Your task to perform on an android device: toggle location history Image 0: 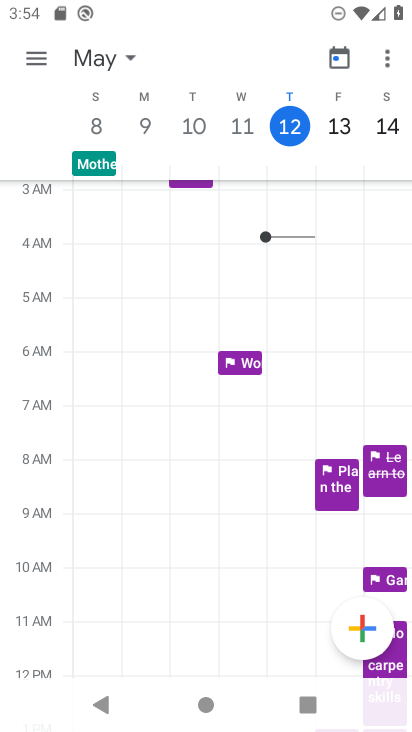
Step 0: press home button
Your task to perform on an android device: toggle location history Image 1: 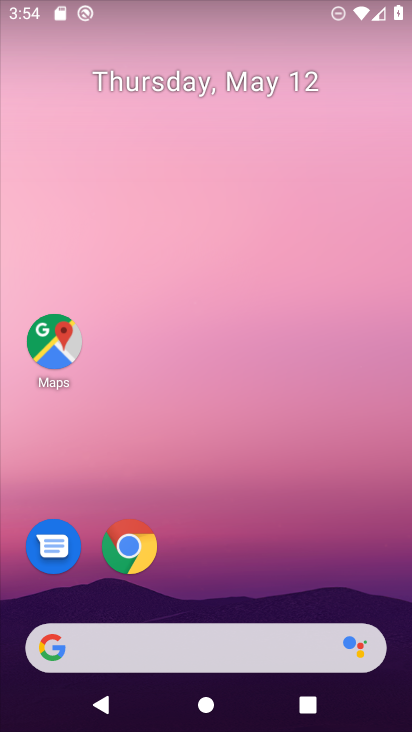
Step 1: drag from (260, 526) to (257, 245)
Your task to perform on an android device: toggle location history Image 2: 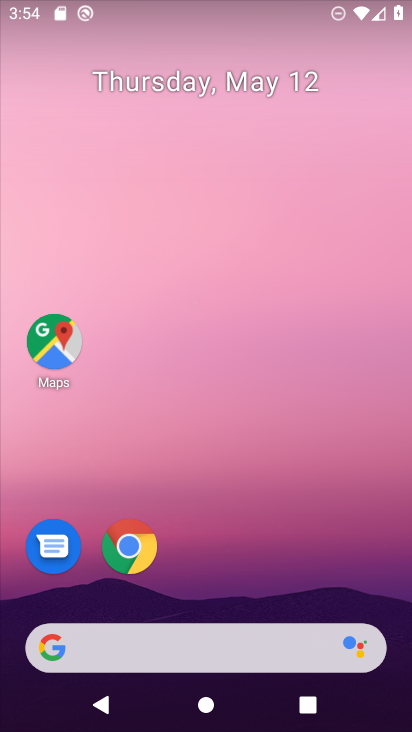
Step 2: drag from (260, 568) to (310, 173)
Your task to perform on an android device: toggle location history Image 3: 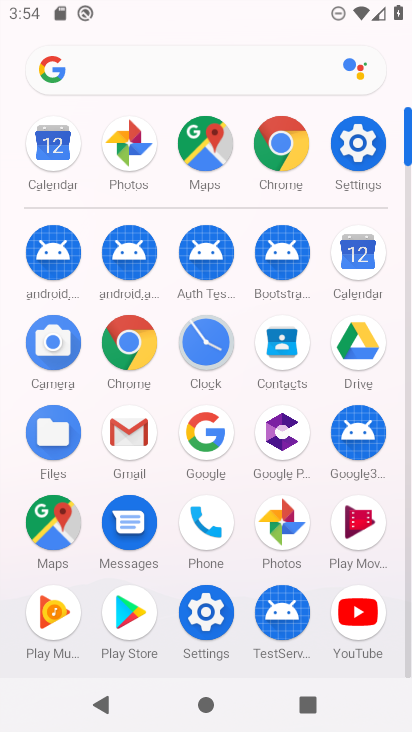
Step 3: click (369, 145)
Your task to perform on an android device: toggle location history Image 4: 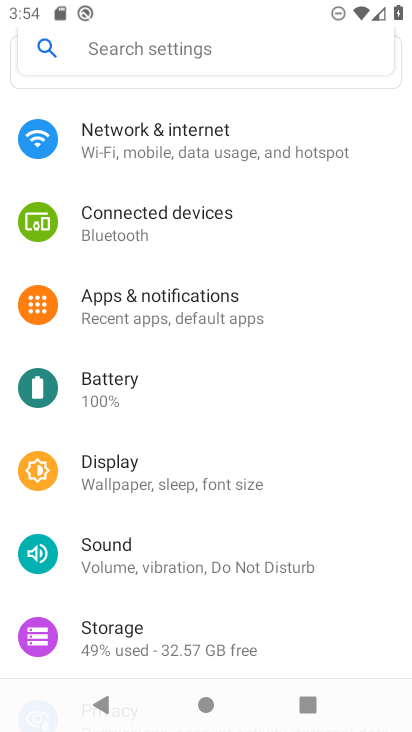
Step 4: drag from (186, 582) to (260, 276)
Your task to perform on an android device: toggle location history Image 5: 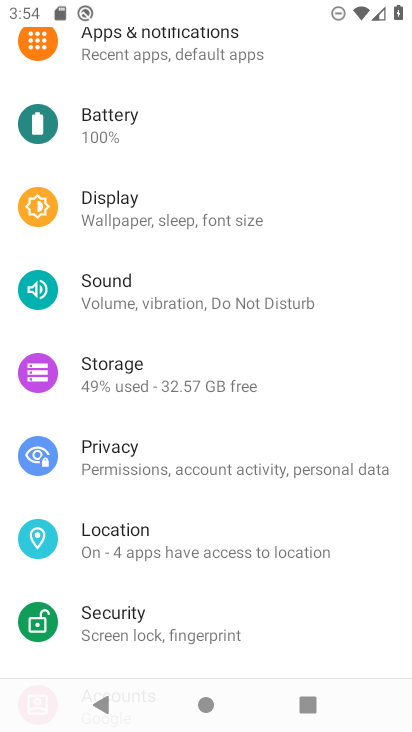
Step 5: click (148, 533)
Your task to perform on an android device: toggle location history Image 6: 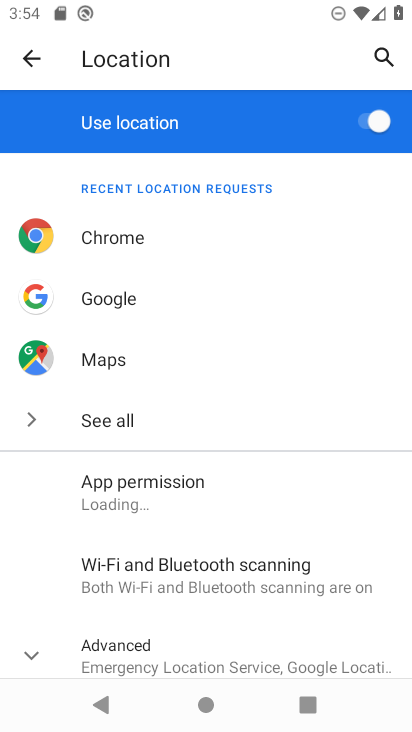
Step 6: click (182, 662)
Your task to perform on an android device: toggle location history Image 7: 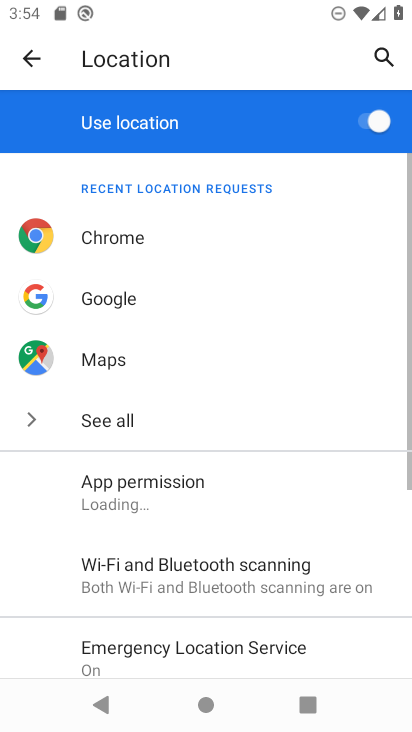
Step 7: drag from (212, 582) to (272, 212)
Your task to perform on an android device: toggle location history Image 8: 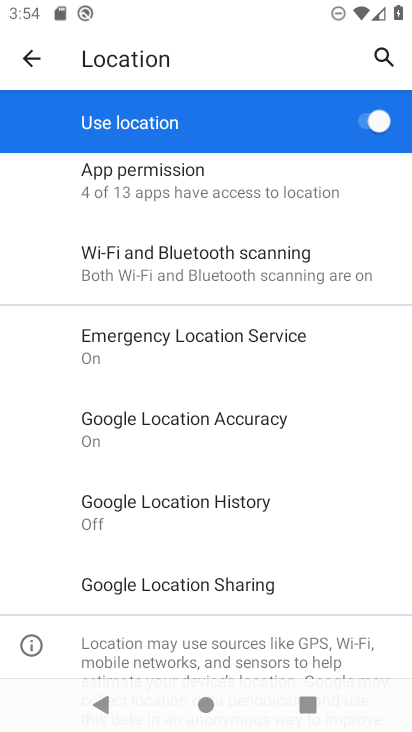
Step 8: click (221, 495)
Your task to perform on an android device: toggle location history Image 9: 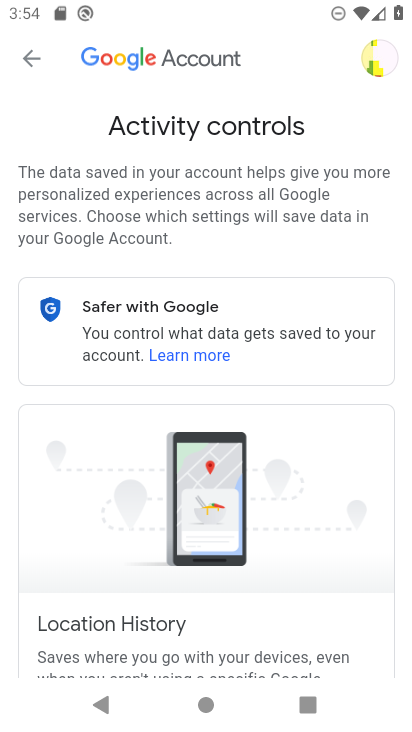
Step 9: drag from (286, 578) to (325, 191)
Your task to perform on an android device: toggle location history Image 10: 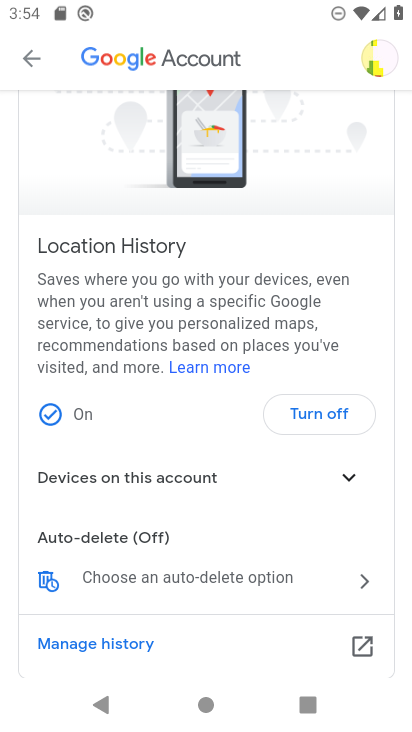
Step 10: click (297, 412)
Your task to perform on an android device: toggle location history Image 11: 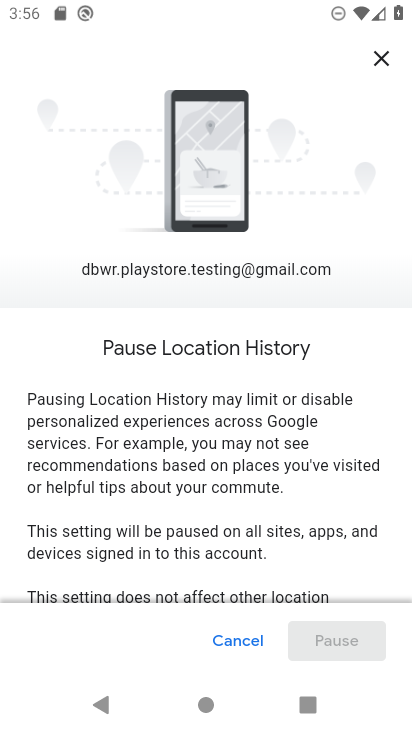
Step 11: task complete